Your task to perform on an android device: move a message to another label in the gmail app Image 0: 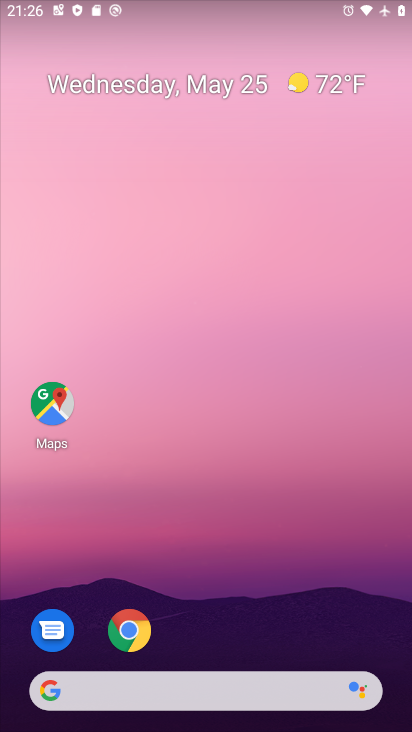
Step 0: drag from (205, 644) to (205, 254)
Your task to perform on an android device: move a message to another label in the gmail app Image 1: 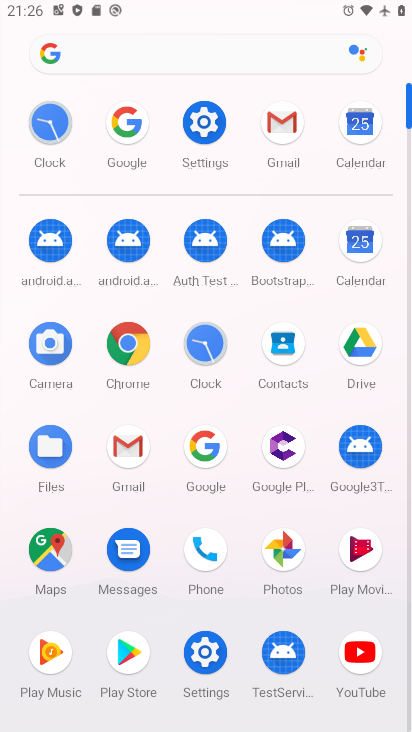
Step 1: click (278, 154)
Your task to perform on an android device: move a message to another label in the gmail app Image 2: 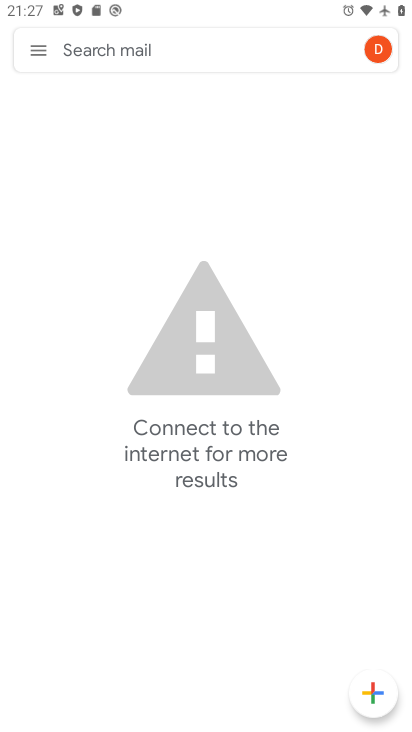
Step 2: click (40, 61)
Your task to perform on an android device: move a message to another label in the gmail app Image 3: 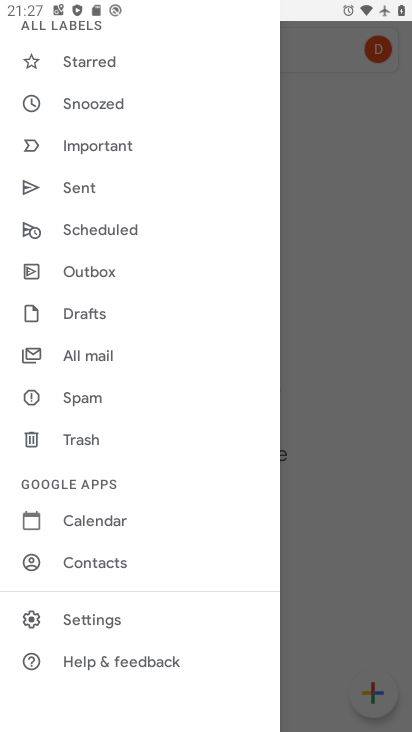
Step 3: click (95, 345)
Your task to perform on an android device: move a message to another label in the gmail app Image 4: 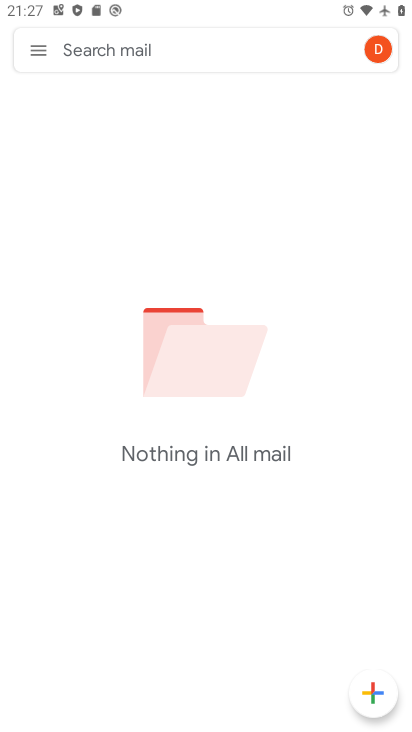
Step 4: task complete